Your task to perform on an android device: check battery use Image 0: 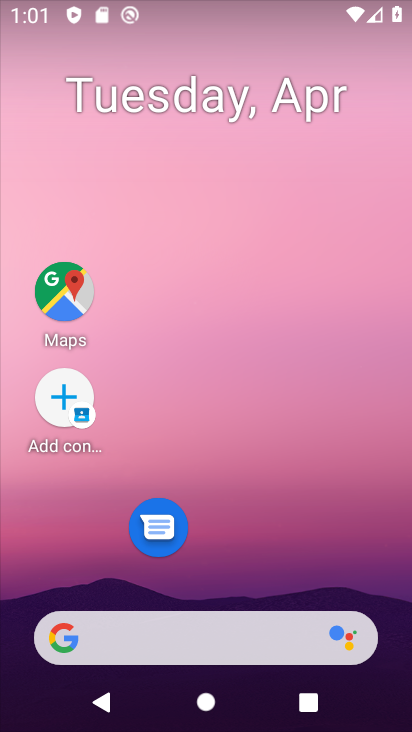
Step 0: drag from (266, 588) to (323, 108)
Your task to perform on an android device: check battery use Image 1: 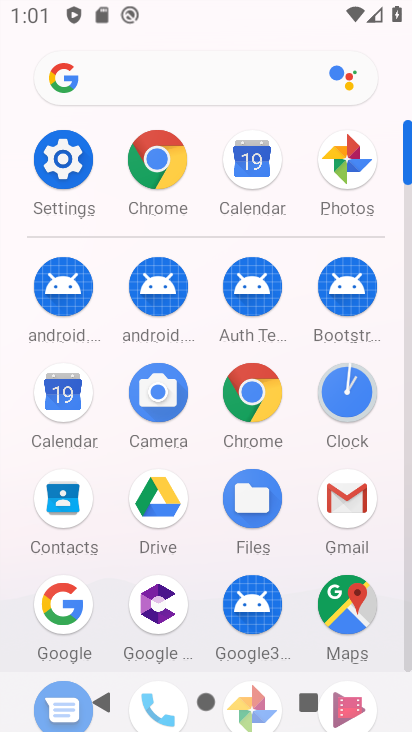
Step 1: click (70, 169)
Your task to perform on an android device: check battery use Image 2: 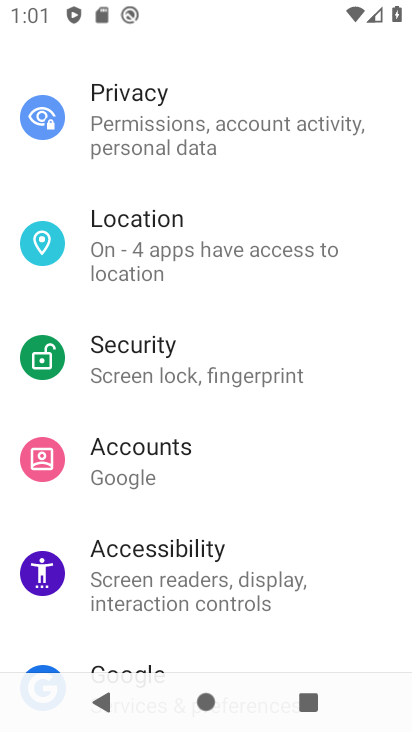
Step 2: drag from (242, 294) to (226, 383)
Your task to perform on an android device: check battery use Image 3: 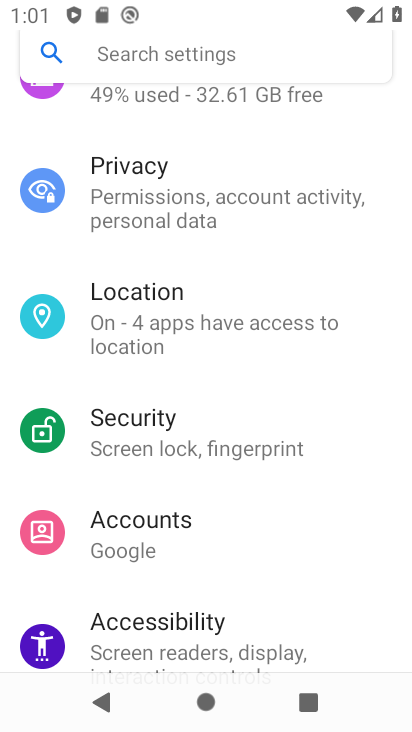
Step 3: drag from (254, 277) to (272, 368)
Your task to perform on an android device: check battery use Image 4: 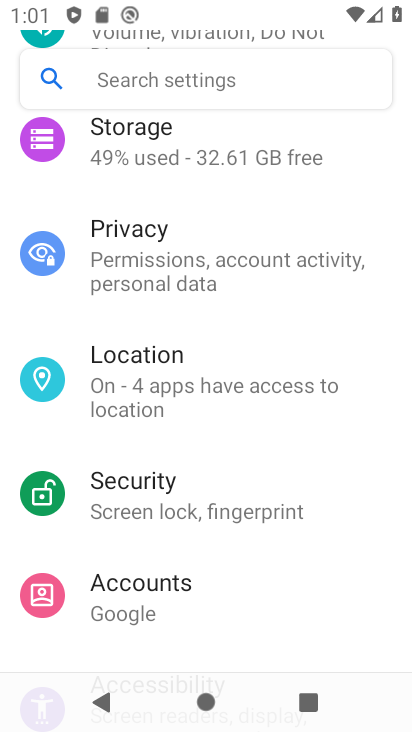
Step 4: drag from (277, 213) to (267, 306)
Your task to perform on an android device: check battery use Image 5: 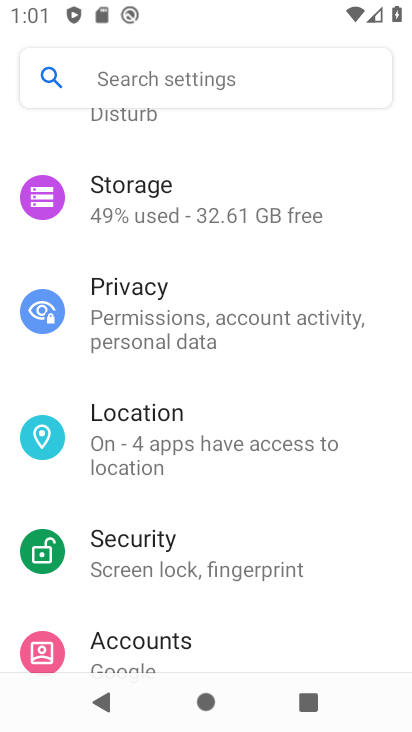
Step 5: drag from (245, 176) to (228, 251)
Your task to perform on an android device: check battery use Image 6: 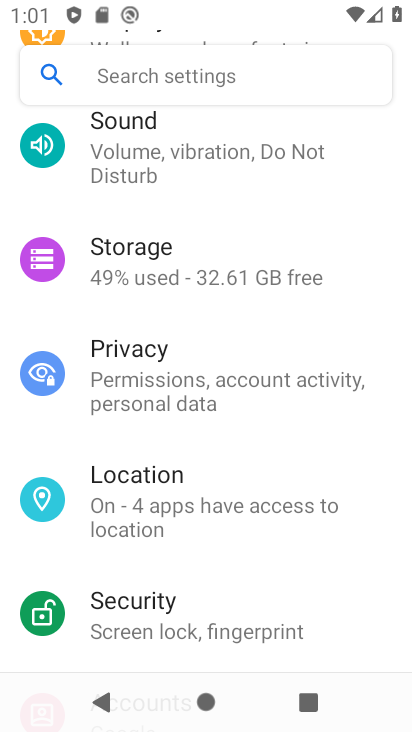
Step 6: drag from (238, 200) to (236, 278)
Your task to perform on an android device: check battery use Image 7: 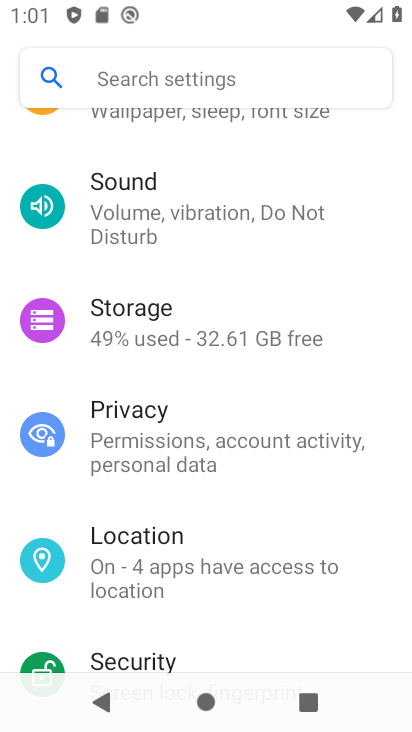
Step 7: drag from (236, 165) to (226, 284)
Your task to perform on an android device: check battery use Image 8: 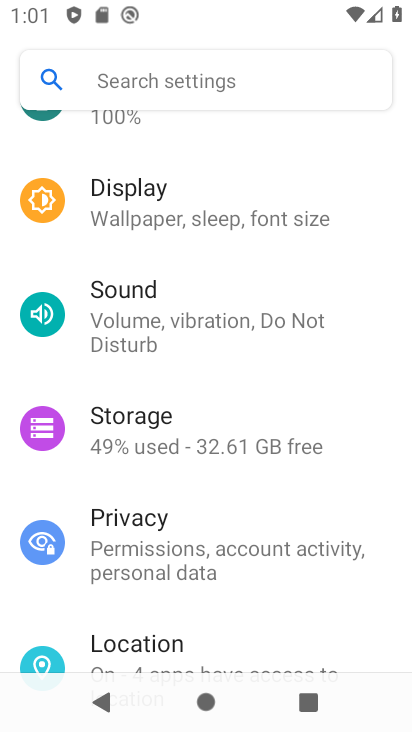
Step 8: drag from (222, 182) to (235, 271)
Your task to perform on an android device: check battery use Image 9: 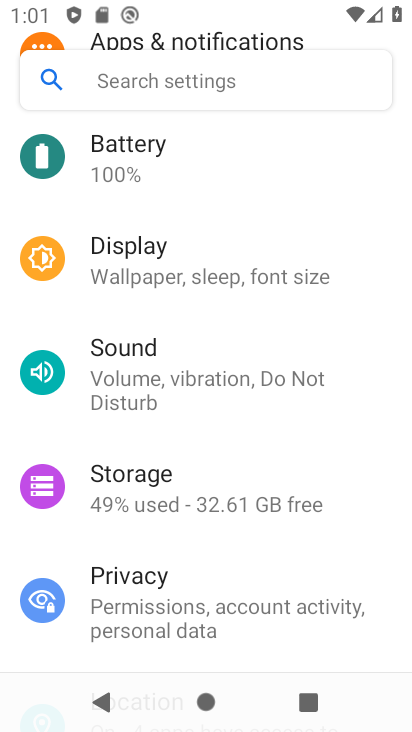
Step 9: click (125, 136)
Your task to perform on an android device: check battery use Image 10: 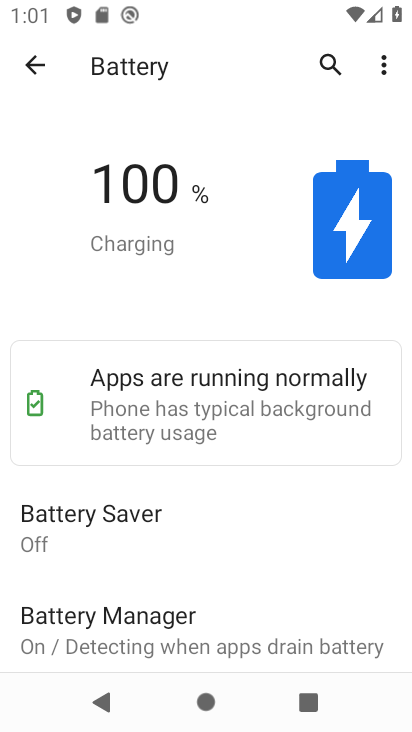
Step 10: click (385, 59)
Your task to perform on an android device: check battery use Image 11: 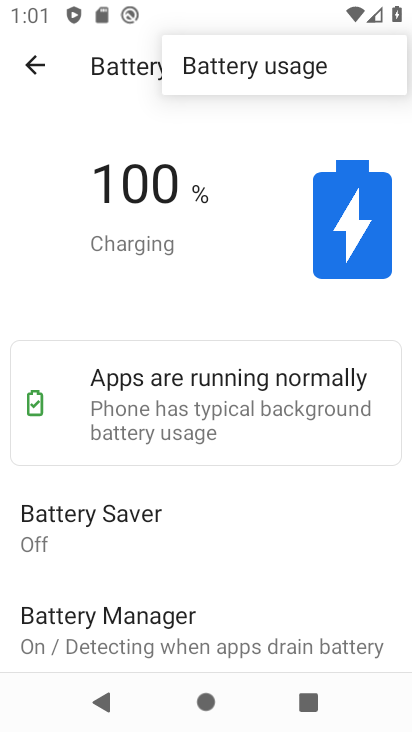
Step 11: click (293, 69)
Your task to perform on an android device: check battery use Image 12: 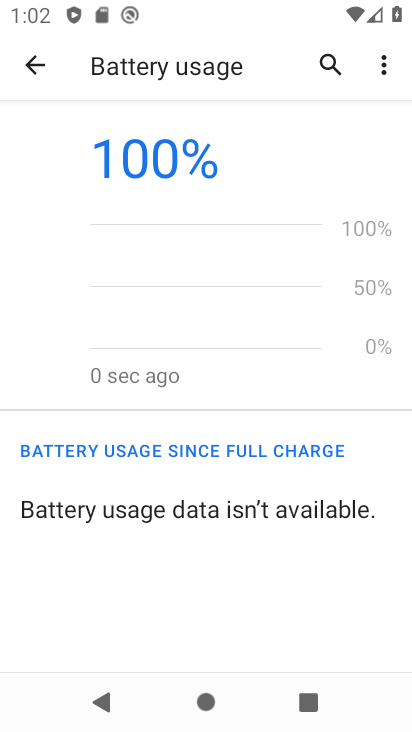
Step 12: task complete